Your task to perform on an android device: Go to Amazon Image 0: 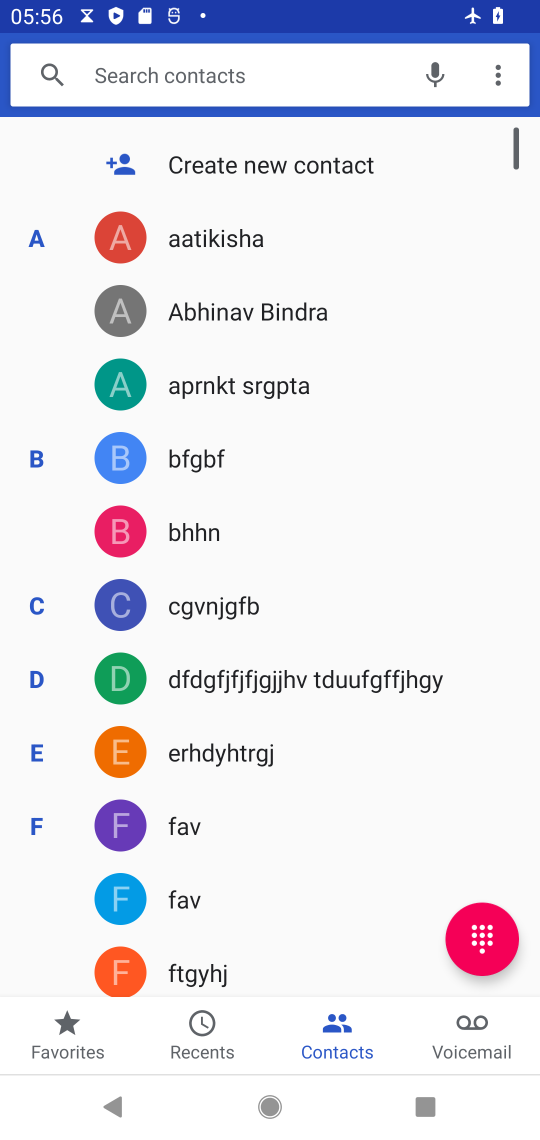
Step 0: press home button
Your task to perform on an android device: Go to Amazon Image 1: 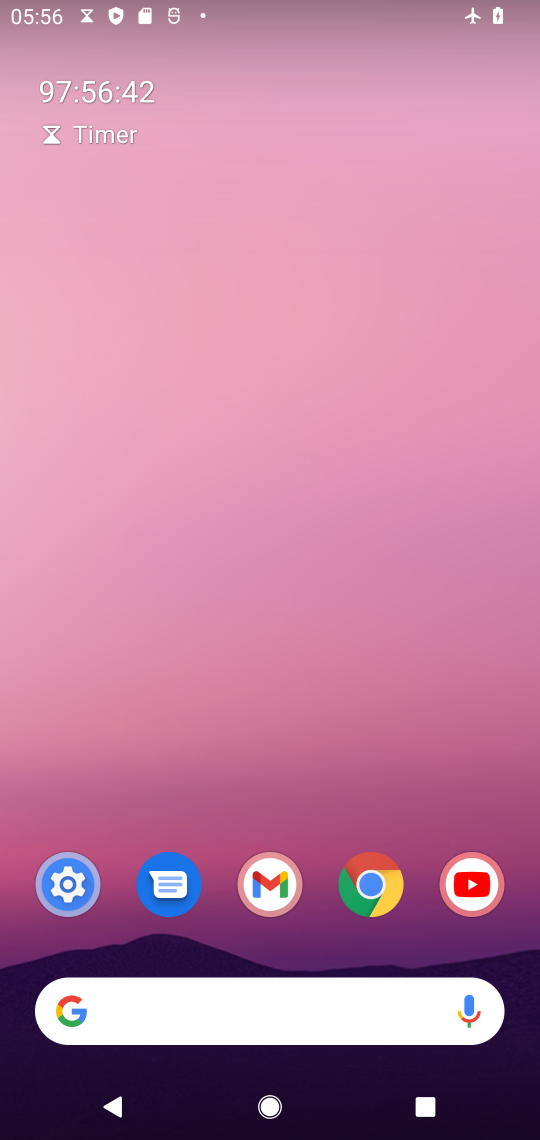
Step 1: drag from (217, 906) to (322, 248)
Your task to perform on an android device: Go to Amazon Image 2: 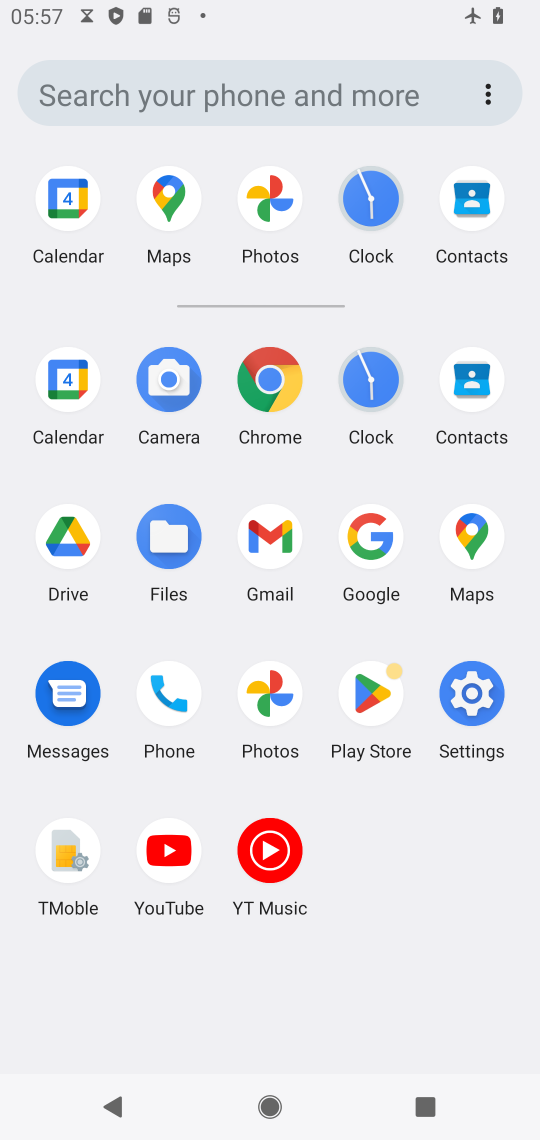
Step 2: click (261, 365)
Your task to perform on an android device: Go to Amazon Image 3: 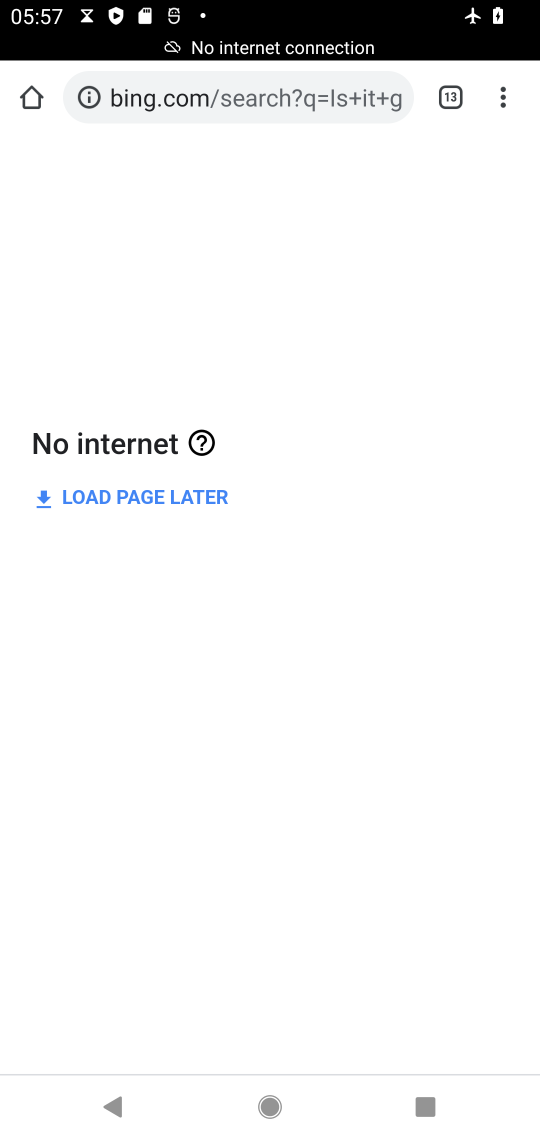
Step 3: click (513, 93)
Your task to perform on an android device: Go to Amazon Image 4: 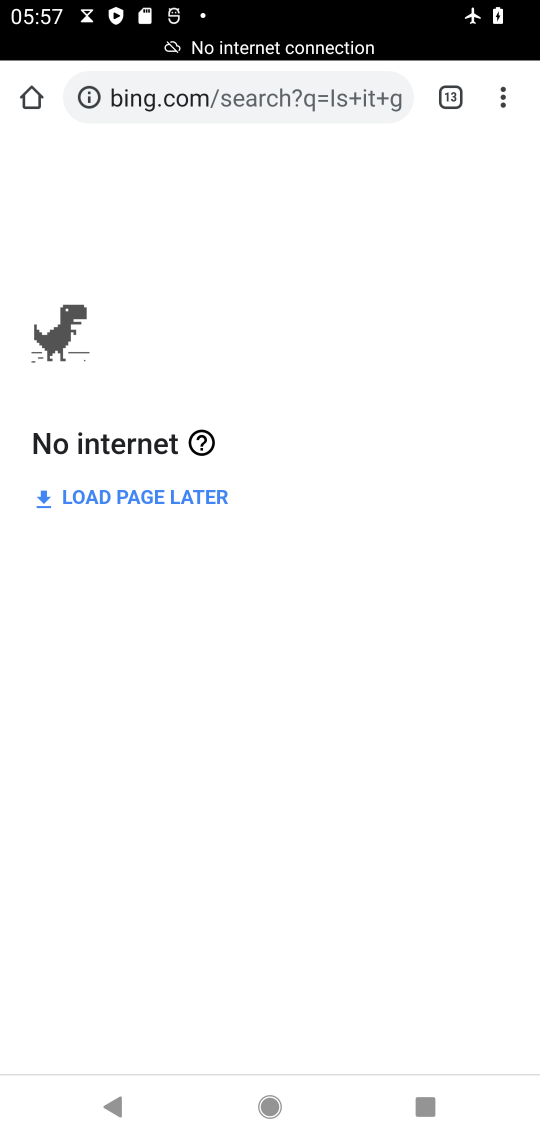
Step 4: click (511, 94)
Your task to perform on an android device: Go to Amazon Image 5: 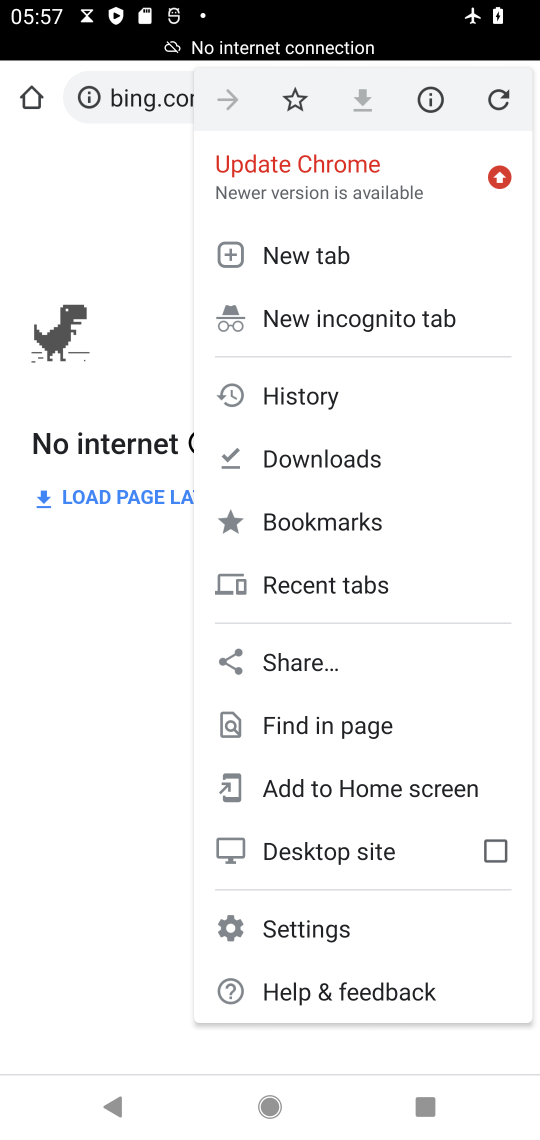
Step 5: click (310, 235)
Your task to perform on an android device: Go to Amazon Image 6: 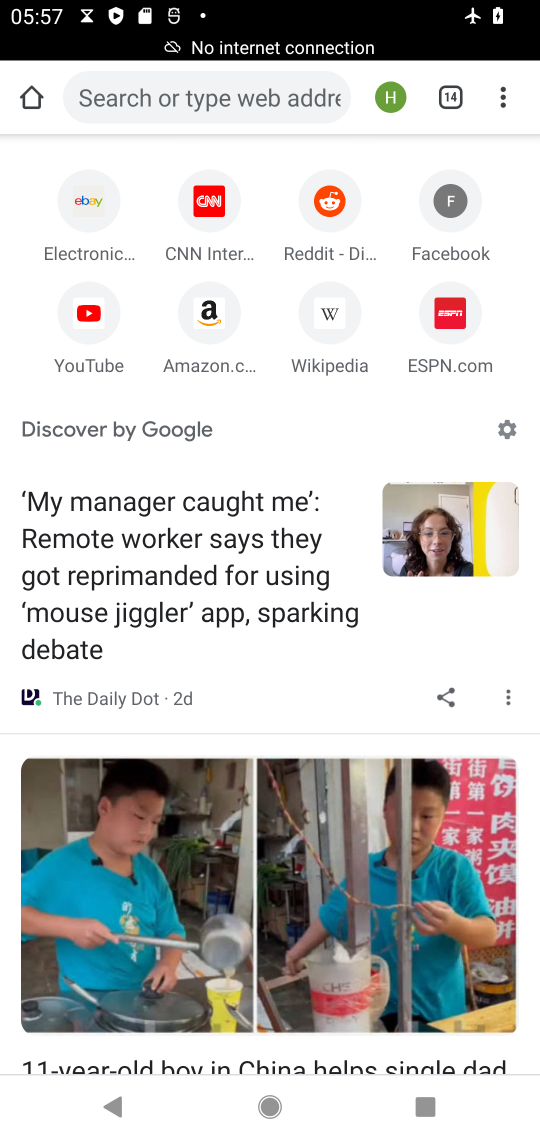
Step 6: click (228, 311)
Your task to perform on an android device: Go to Amazon Image 7: 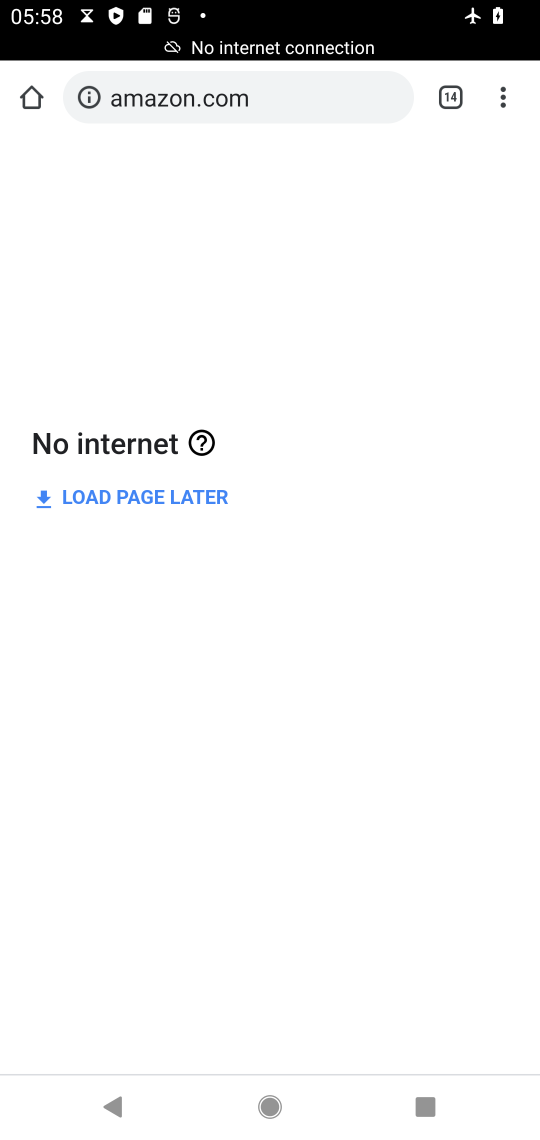
Step 7: task complete